Your task to perform on an android device: Go to Google maps Image 0: 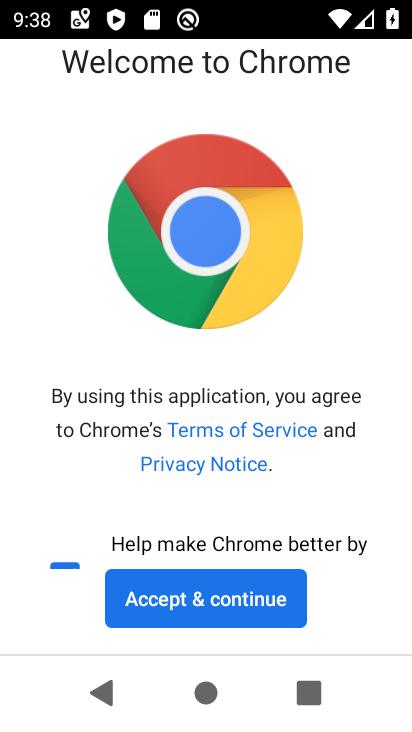
Step 0: press home button
Your task to perform on an android device: Go to Google maps Image 1: 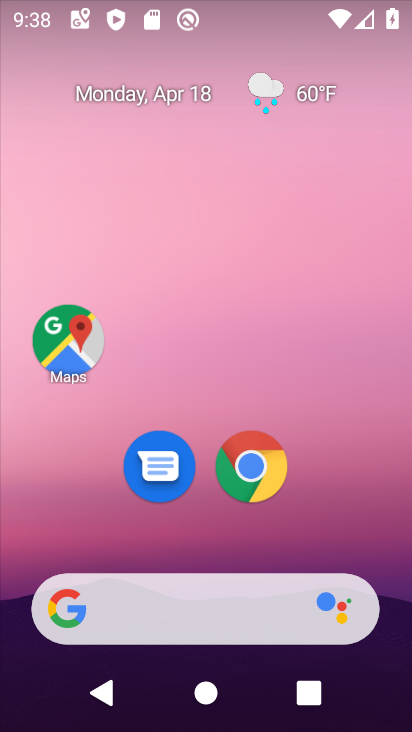
Step 1: drag from (230, 555) to (244, 113)
Your task to perform on an android device: Go to Google maps Image 2: 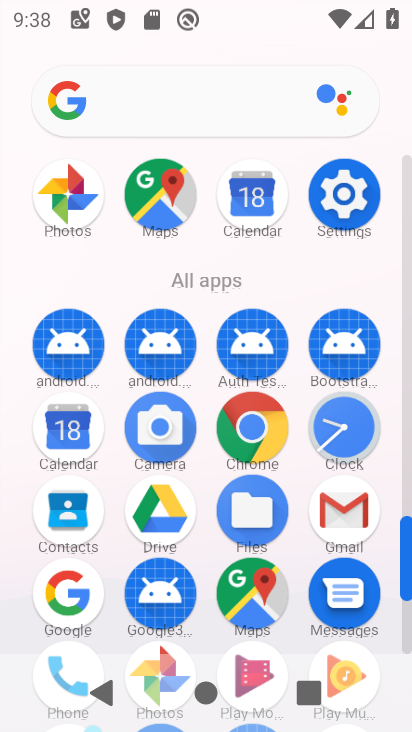
Step 2: click (230, 582)
Your task to perform on an android device: Go to Google maps Image 3: 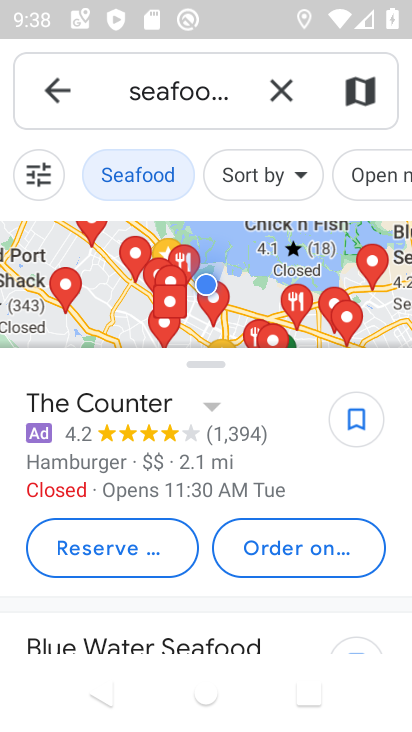
Step 3: click (279, 94)
Your task to perform on an android device: Go to Google maps Image 4: 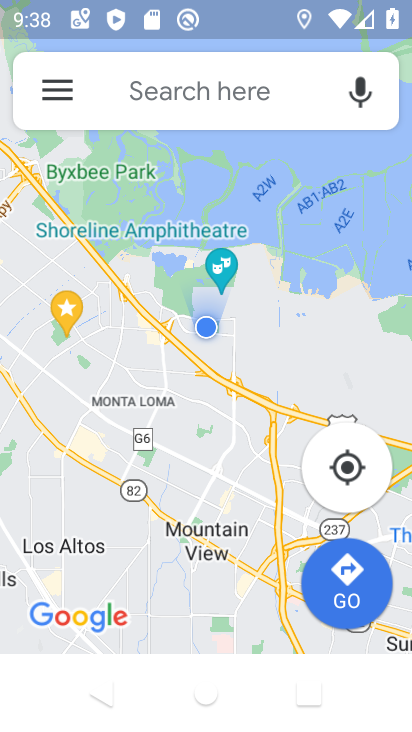
Step 4: click (271, 108)
Your task to perform on an android device: Go to Google maps Image 5: 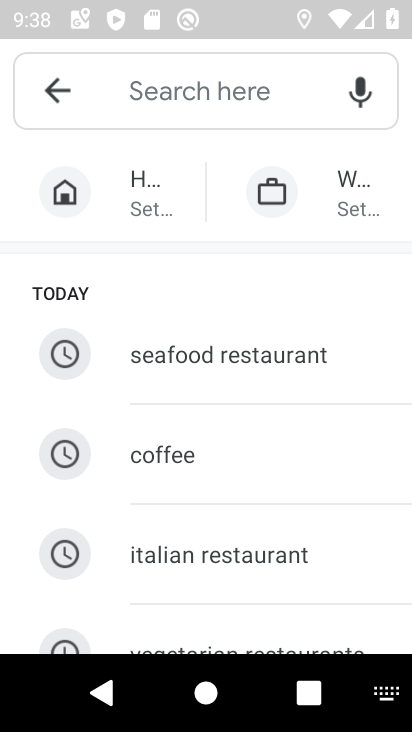
Step 5: task complete